Your task to perform on an android device: Show me the alarms in the clock app Image 0: 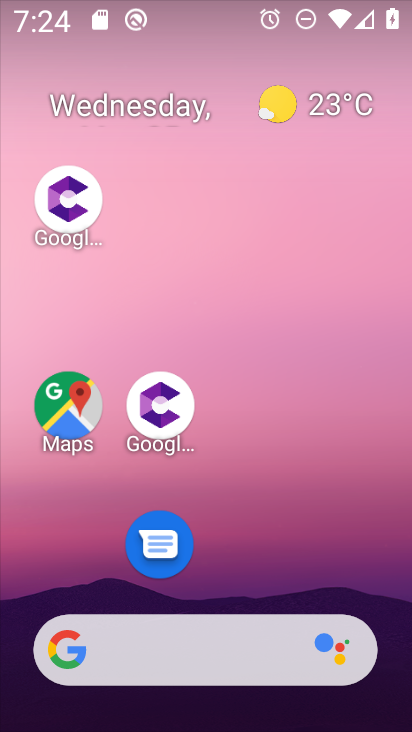
Step 0: drag from (277, 539) to (202, 94)
Your task to perform on an android device: Show me the alarms in the clock app Image 1: 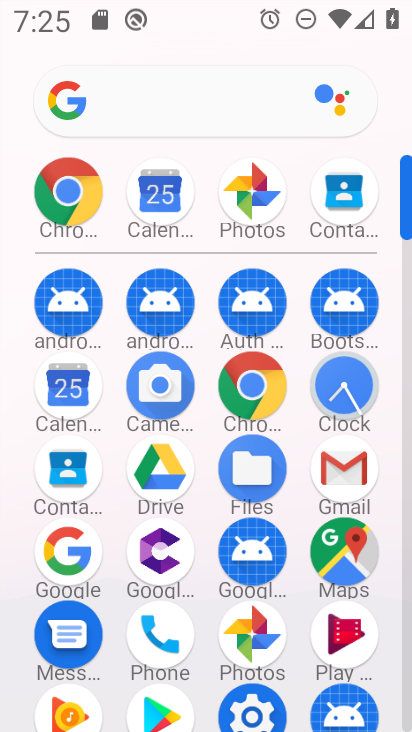
Step 1: click (347, 385)
Your task to perform on an android device: Show me the alarms in the clock app Image 2: 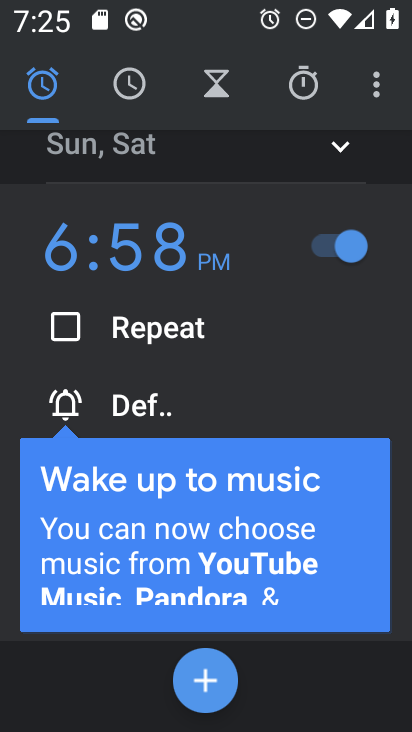
Step 2: task complete